Your task to perform on an android device: What's the weather? Image 0: 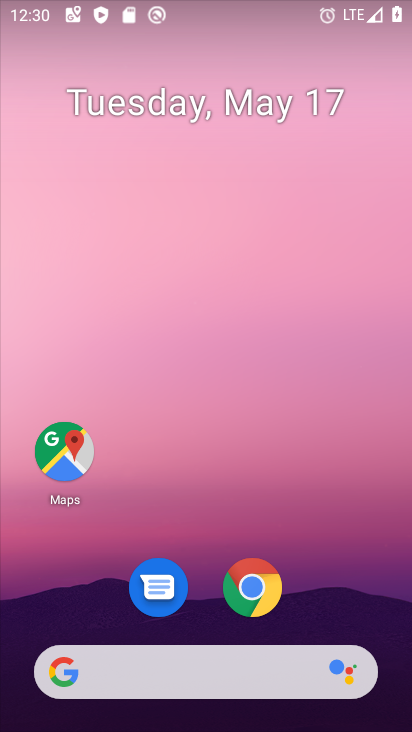
Step 0: drag from (388, 644) to (284, 11)
Your task to perform on an android device: What's the weather? Image 1: 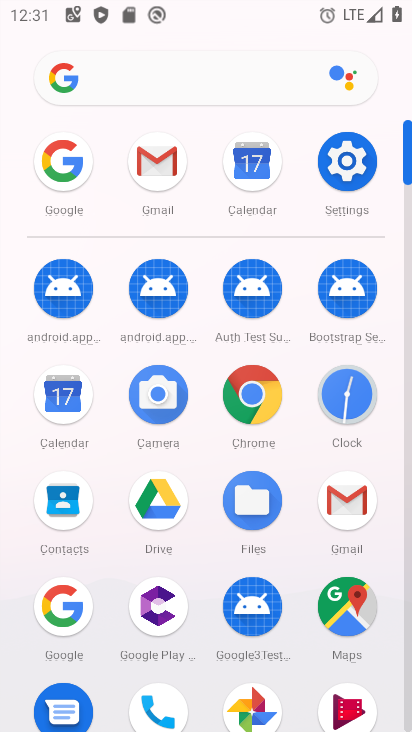
Step 1: click (70, 618)
Your task to perform on an android device: What's the weather? Image 2: 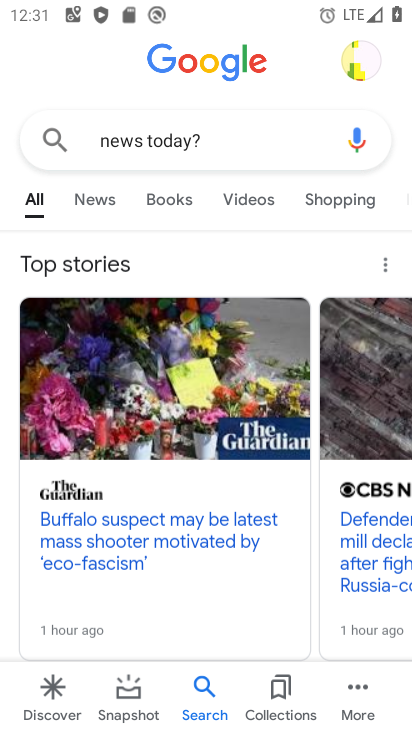
Step 2: press back button
Your task to perform on an android device: What's the weather? Image 3: 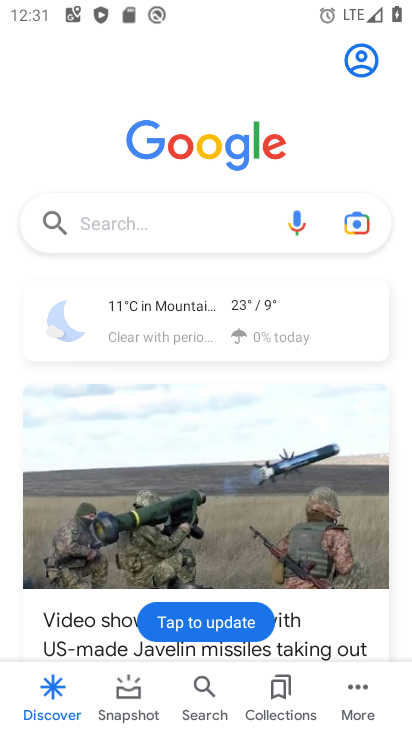
Step 3: click (170, 228)
Your task to perform on an android device: What's the weather? Image 4: 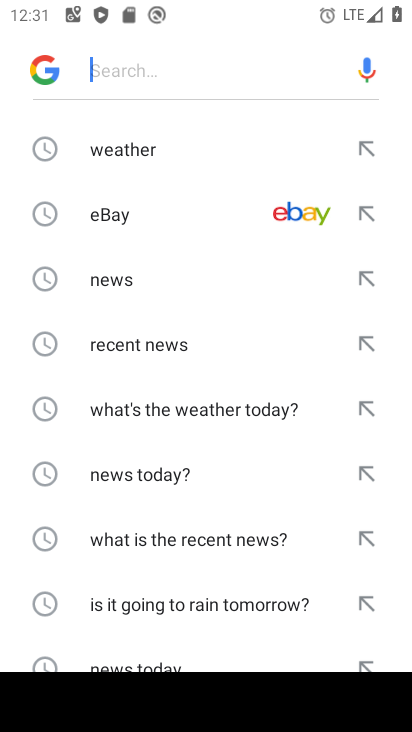
Step 4: click (149, 162)
Your task to perform on an android device: What's the weather? Image 5: 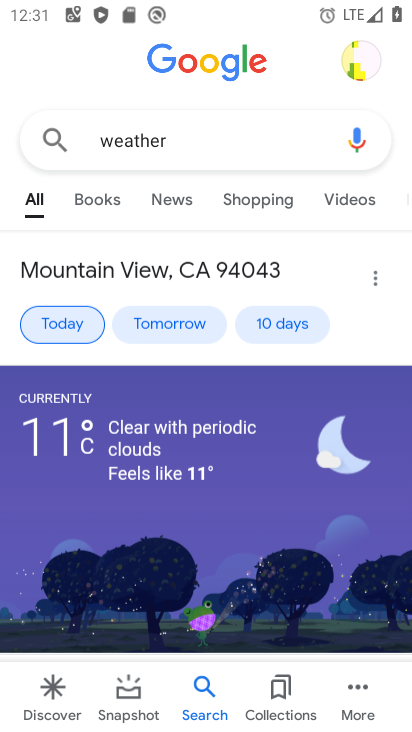
Step 5: task complete